Your task to perform on an android device: Search for the best rated running shoes on Nike.com Image 0: 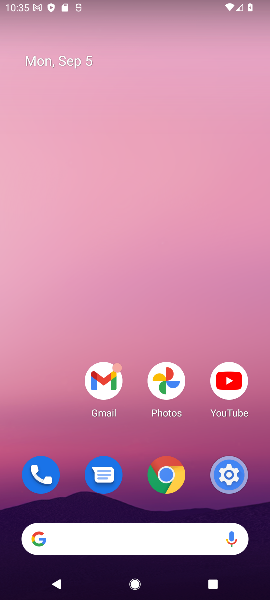
Step 0: click (154, 530)
Your task to perform on an android device: Search for the best rated running shoes on Nike.com Image 1: 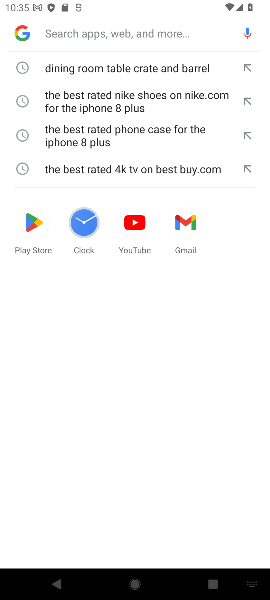
Step 1: type " the best rated running shoes on Nike.com"
Your task to perform on an android device: Search for the best rated running shoes on Nike.com Image 2: 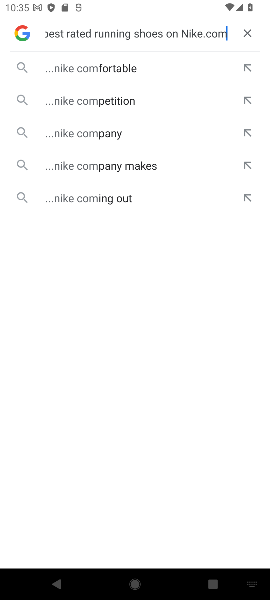
Step 2: click (108, 62)
Your task to perform on an android device: Search for the best rated running shoes on Nike.com Image 3: 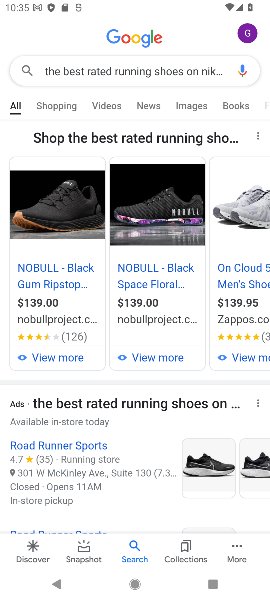
Step 3: task complete